Your task to perform on an android device: Open the web browser Image 0: 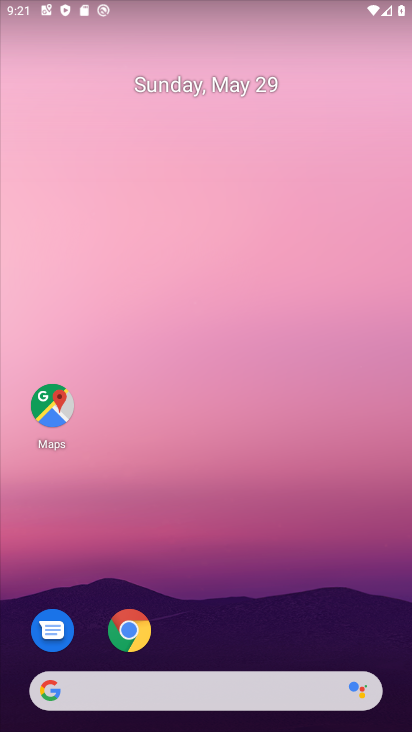
Step 0: click (116, 629)
Your task to perform on an android device: Open the web browser Image 1: 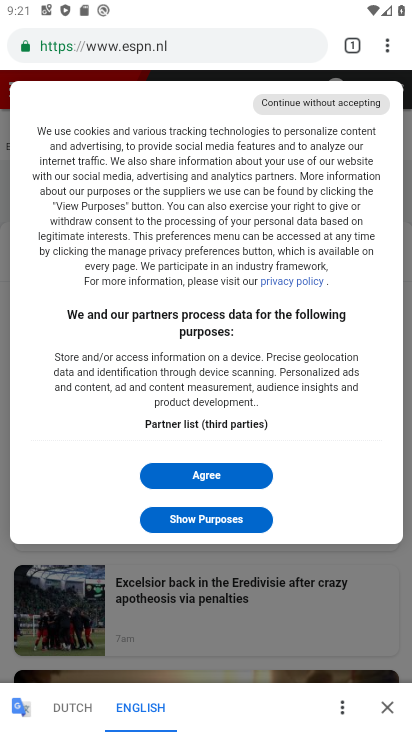
Step 1: task complete